Your task to perform on an android device: Open the phone app and click the voicemail tab. Image 0: 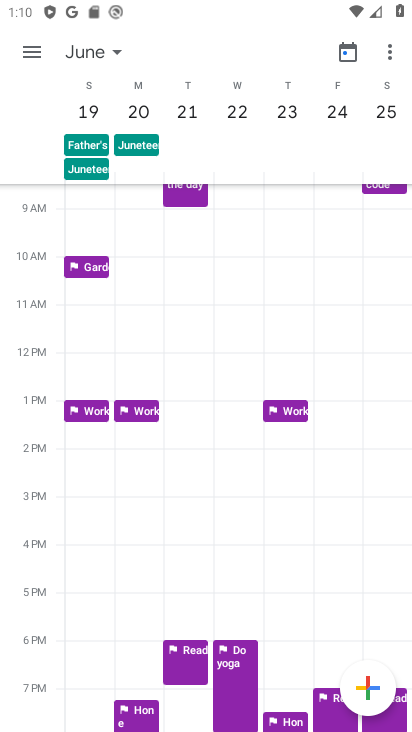
Step 0: press home button
Your task to perform on an android device: Open the phone app and click the voicemail tab. Image 1: 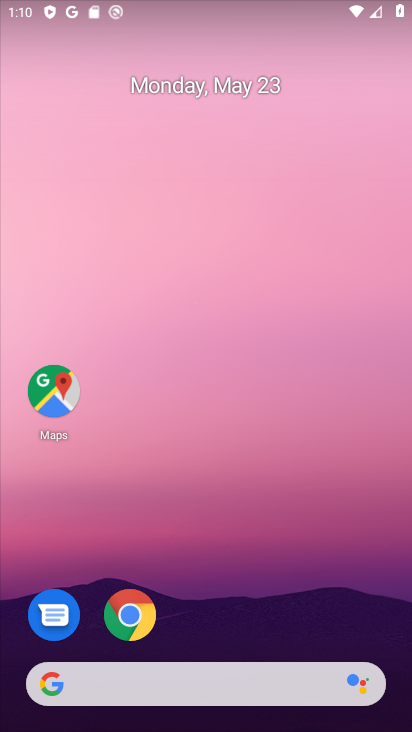
Step 1: drag from (213, 657) to (173, 41)
Your task to perform on an android device: Open the phone app and click the voicemail tab. Image 2: 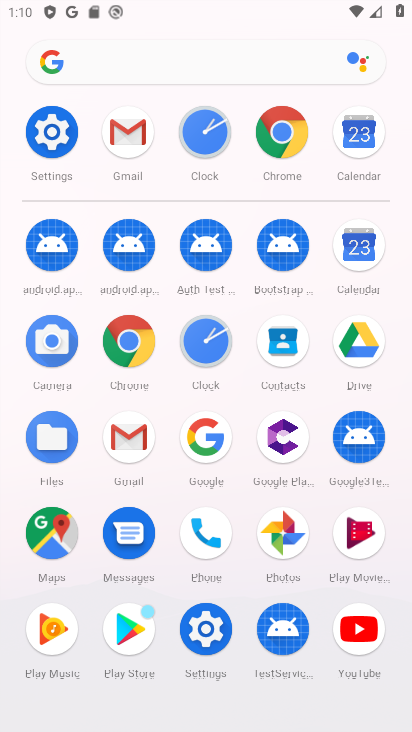
Step 2: click (194, 557)
Your task to perform on an android device: Open the phone app and click the voicemail tab. Image 3: 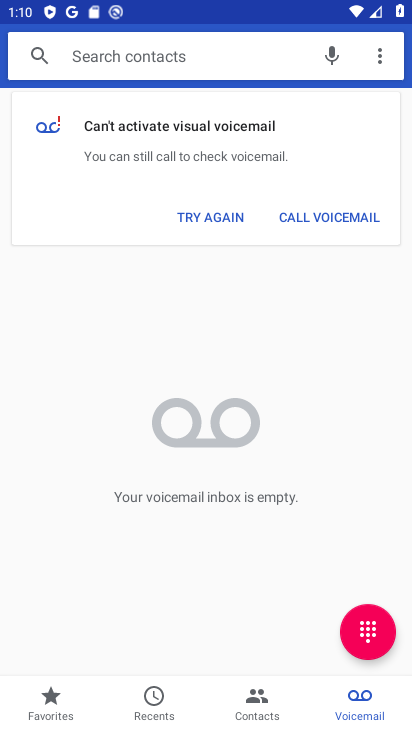
Step 3: click (365, 697)
Your task to perform on an android device: Open the phone app and click the voicemail tab. Image 4: 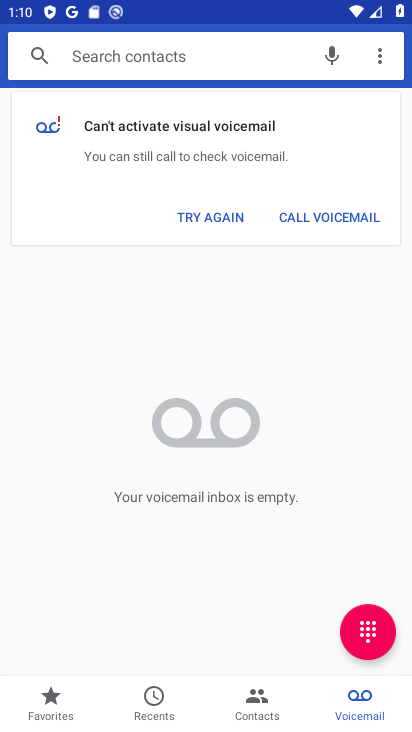
Step 4: task complete